Your task to perform on an android device: allow notifications from all sites in the chrome app Image 0: 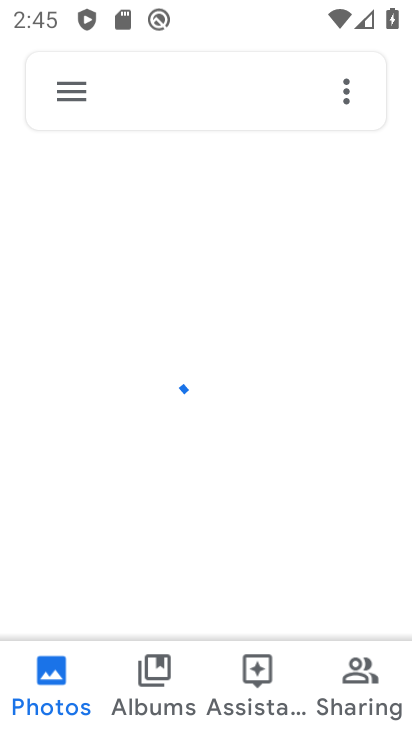
Step 0: press home button
Your task to perform on an android device: allow notifications from all sites in the chrome app Image 1: 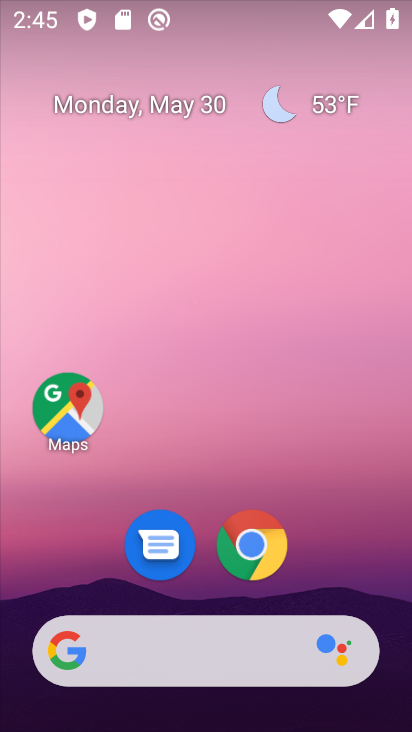
Step 1: drag from (229, 590) to (170, 35)
Your task to perform on an android device: allow notifications from all sites in the chrome app Image 2: 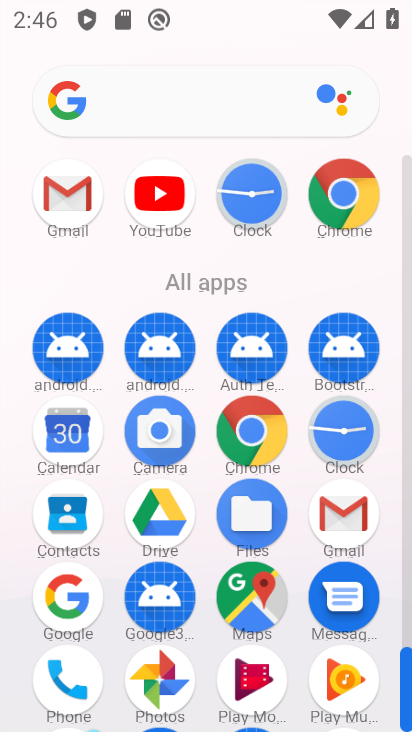
Step 2: click (341, 209)
Your task to perform on an android device: allow notifications from all sites in the chrome app Image 3: 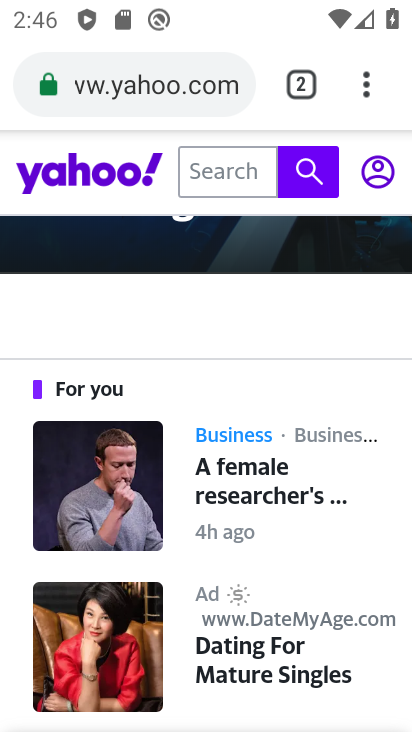
Step 3: click (363, 90)
Your task to perform on an android device: allow notifications from all sites in the chrome app Image 4: 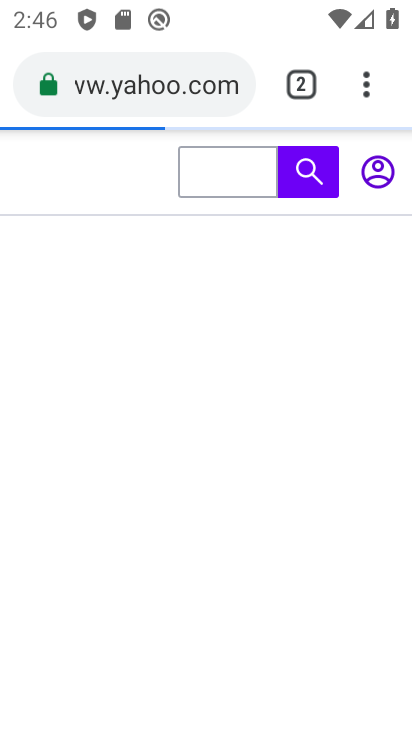
Step 4: click (369, 82)
Your task to perform on an android device: allow notifications from all sites in the chrome app Image 5: 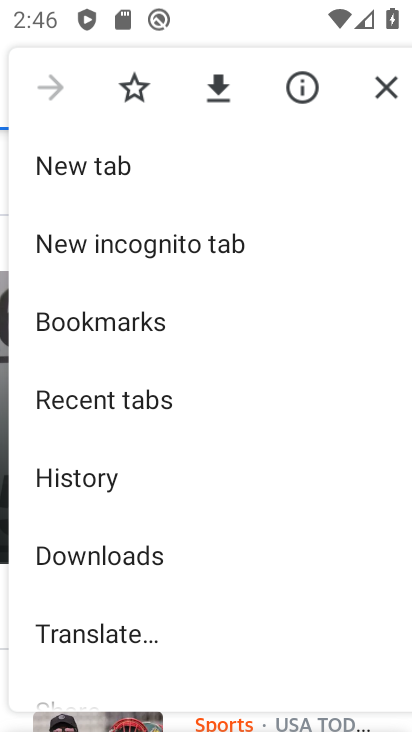
Step 5: drag from (150, 583) to (141, 142)
Your task to perform on an android device: allow notifications from all sites in the chrome app Image 6: 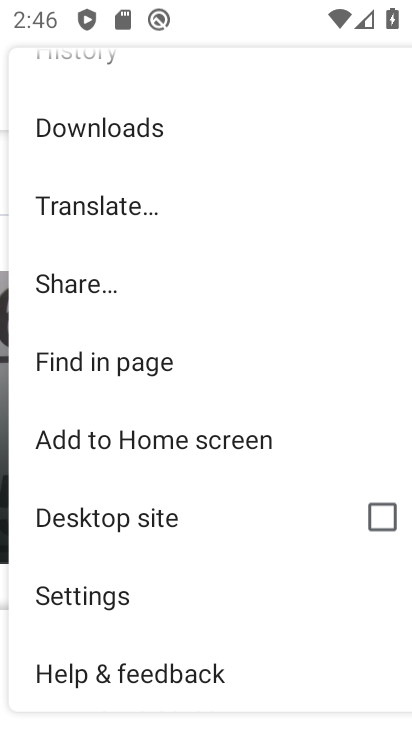
Step 6: click (106, 603)
Your task to perform on an android device: allow notifications from all sites in the chrome app Image 7: 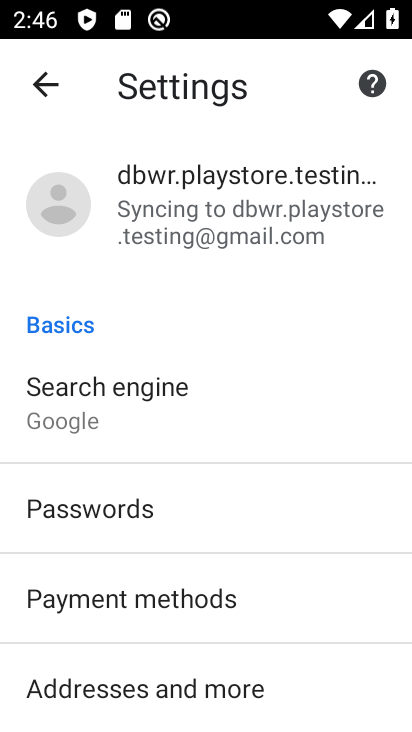
Step 7: drag from (92, 577) to (97, 169)
Your task to perform on an android device: allow notifications from all sites in the chrome app Image 8: 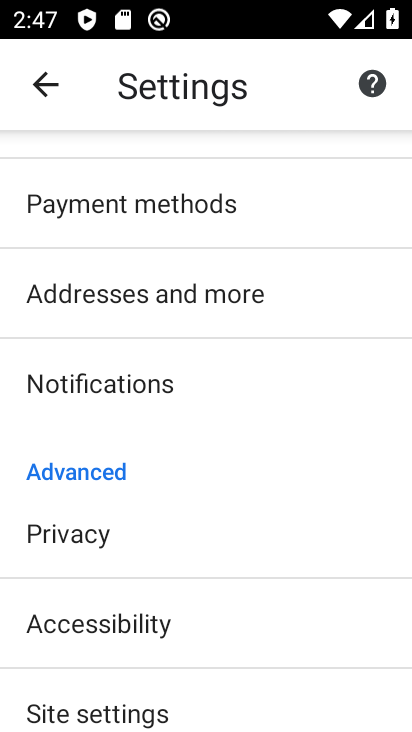
Step 8: drag from (198, 460) to (211, 91)
Your task to perform on an android device: allow notifications from all sites in the chrome app Image 9: 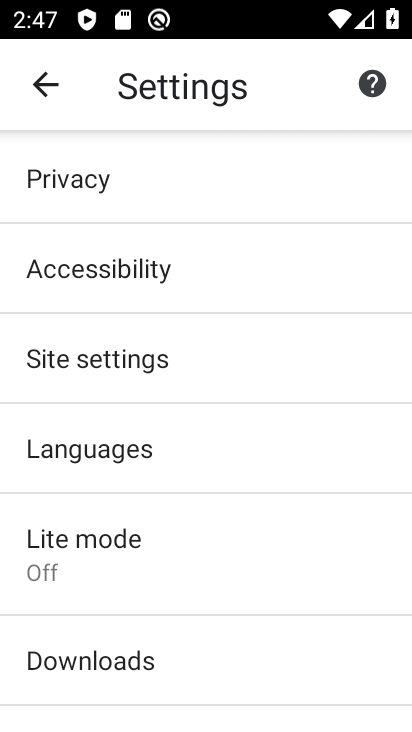
Step 9: click (78, 351)
Your task to perform on an android device: allow notifications from all sites in the chrome app Image 10: 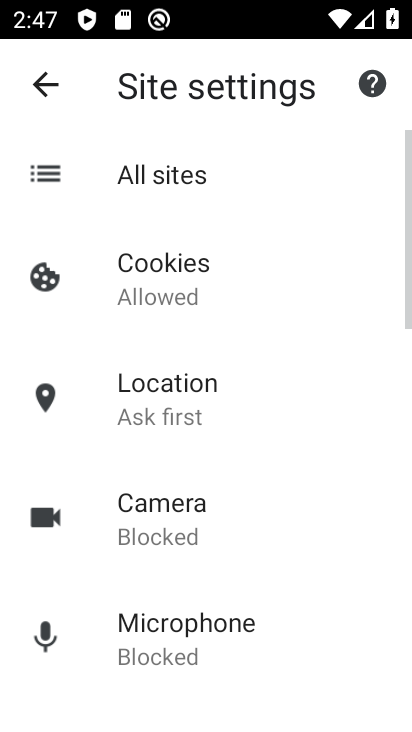
Step 10: drag from (168, 581) to (179, 254)
Your task to perform on an android device: allow notifications from all sites in the chrome app Image 11: 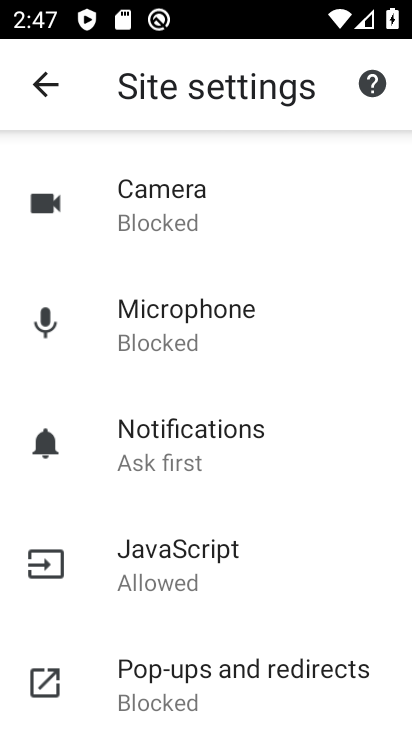
Step 11: click (182, 489)
Your task to perform on an android device: allow notifications from all sites in the chrome app Image 12: 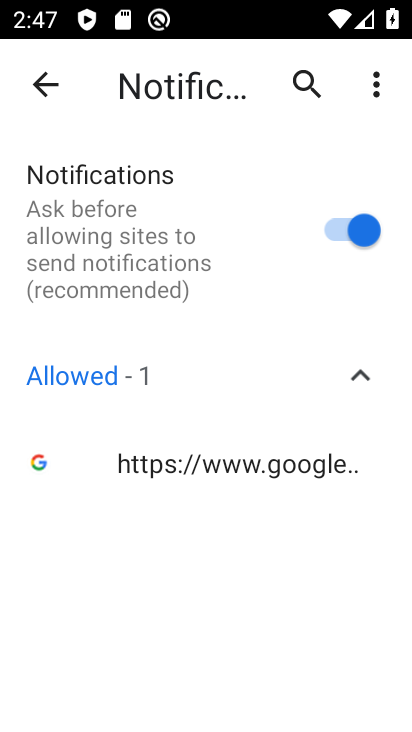
Step 12: task complete